Your task to perform on an android device: open device folders in google photos Image 0: 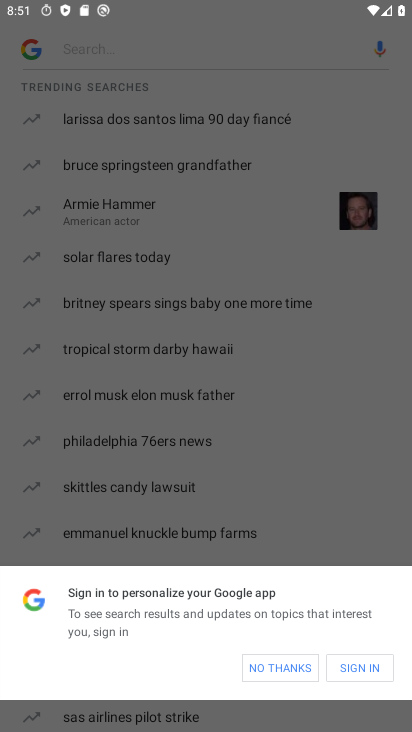
Step 0: press home button
Your task to perform on an android device: open device folders in google photos Image 1: 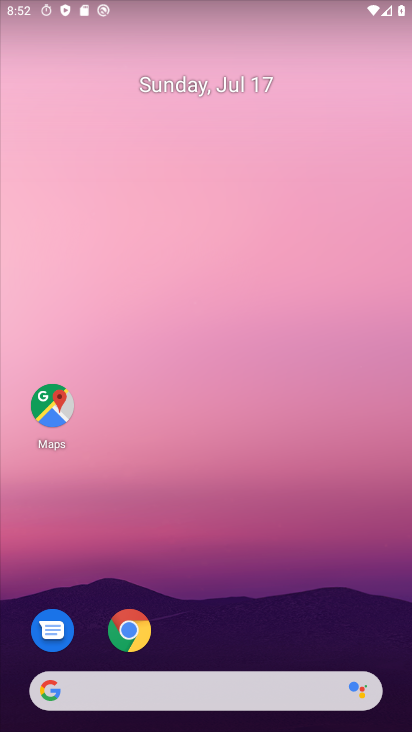
Step 1: drag from (23, 702) to (178, 198)
Your task to perform on an android device: open device folders in google photos Image 2: 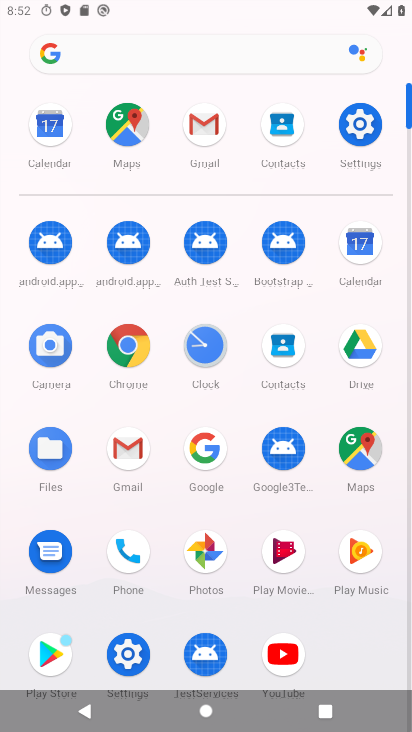
Step 2: click (205, 557)
Your task to perform on an android device: open device folders in google photos Image 3: 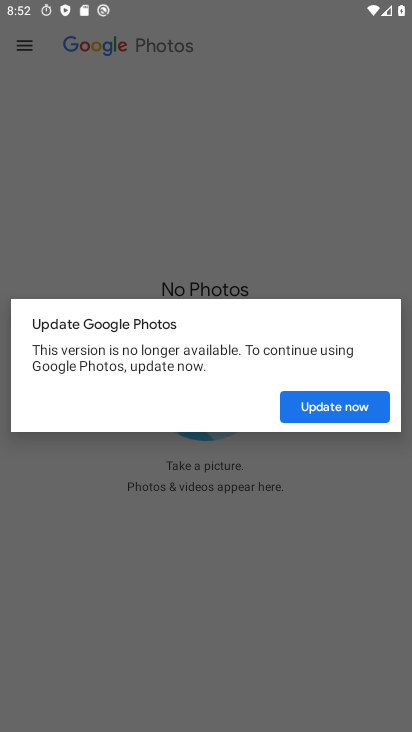
Step 3: click (371, 410)
Your task to perform on an android device: open device folders in google photos Image 4: 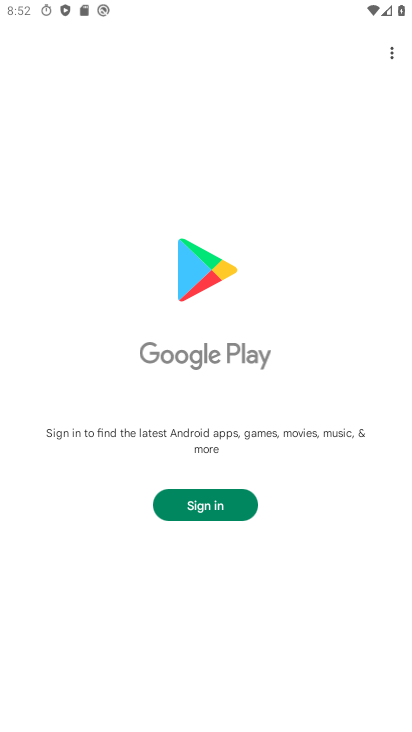
Step 4: task complete